Your task to perform on an android device: Go to notification settings Image 0: 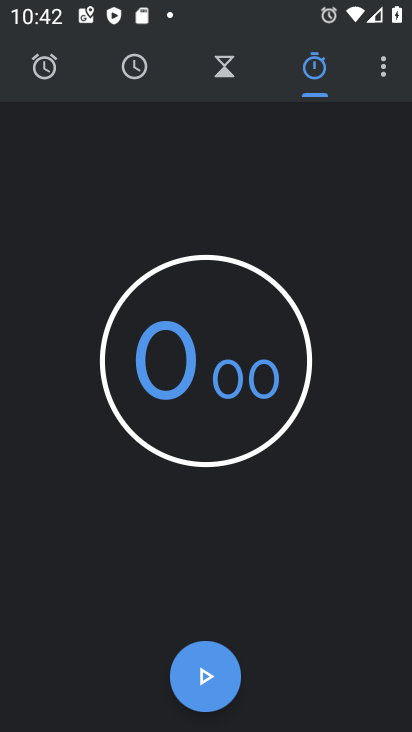
Step 0: press home button
Your task to perform on an android device: Go to notification settings Image 1: 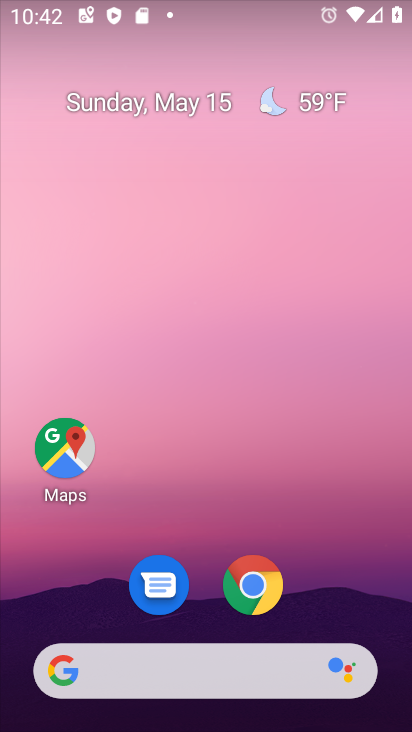
Step 1: drag from (265, 509) to (259, 105)
Your task to perform on an android device: Go to notification settings Image 2: 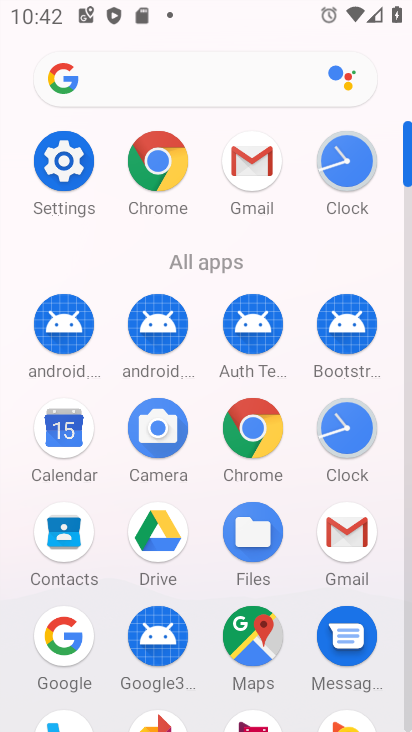
Step 2: click (68, 162)
Your task to perform on an android device: Go to notification settings Image 3: 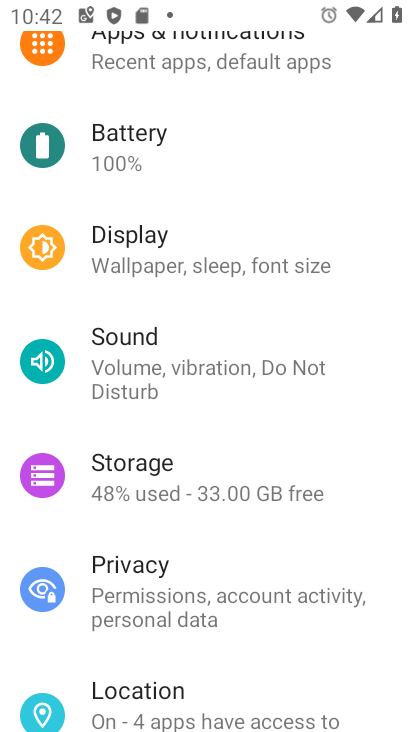
Step 3: click (241, 56)
Your task to perform on an android device: Go to notification settings Image 4: 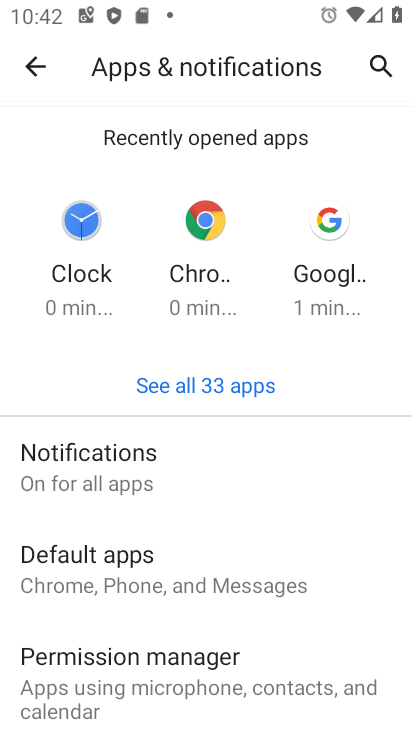
Step 4: click (130, 472)
Your task to perform on an android device: Go to notification settings Image 5: 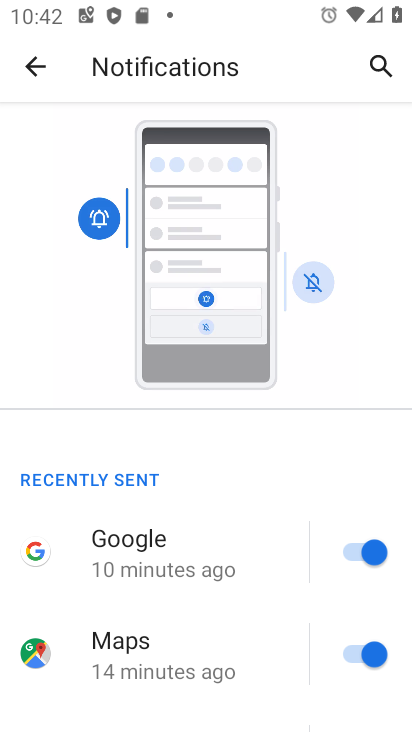
Step 5: task complete